Your task to perform on an android device: Go to internet settings Image 0: 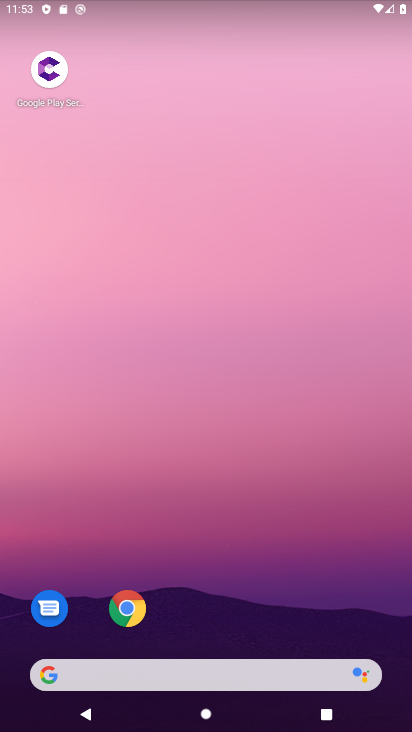
Step 0: drag from (286, 601) to (273, 19)
Your task to perform on an android device: Go to internet settings Image 1: 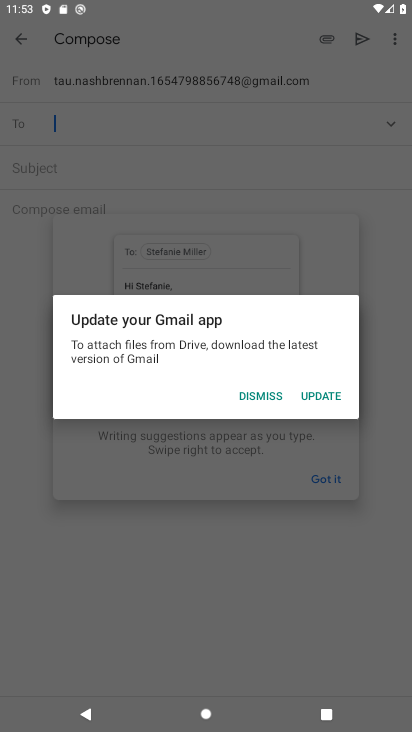
Step 1: press home button
Your task to perform on an android device: Go to internet settings Image 2: 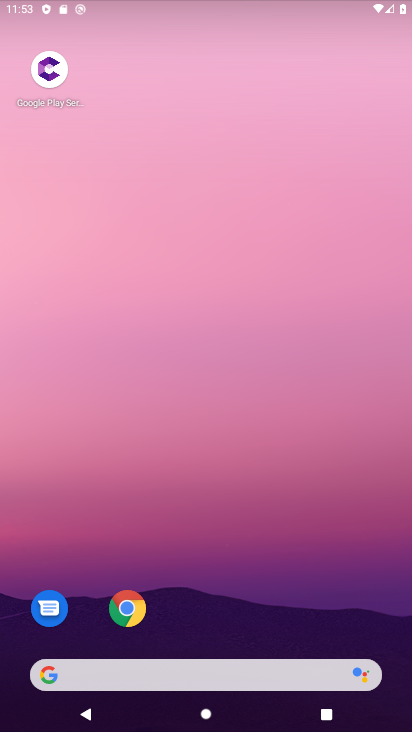
Step 2: drag from (258, 620) to (344, 44)
Your task to perform on an android device: Go to internet settings Image 3: 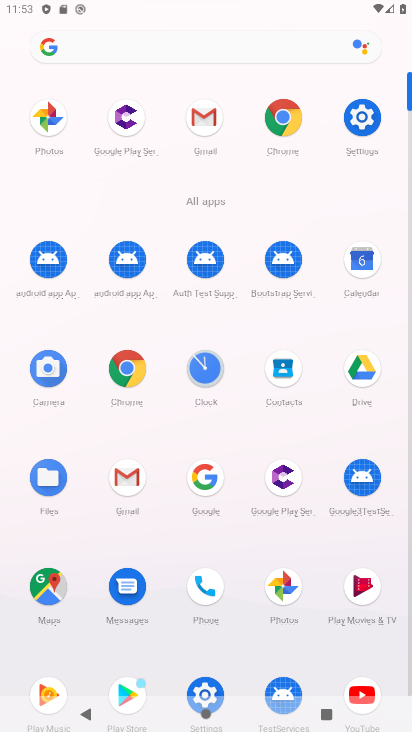
Step 3: click (364, 170)
Your task to perform on an android device: Go to internet settings Image 4: 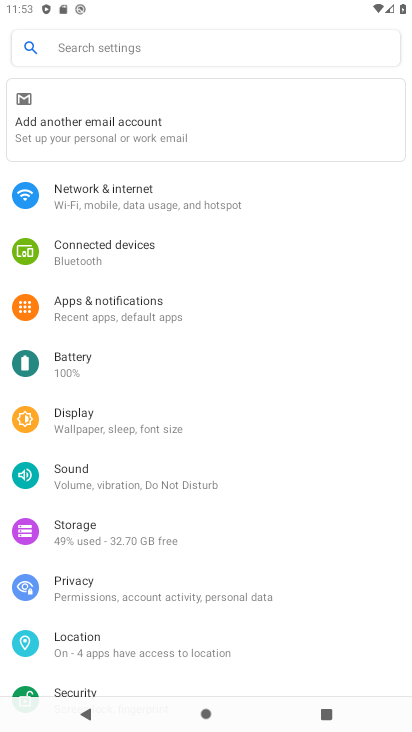
Step 4: click (217, 190)
Your task to perform on an android device: Go to internet settings Image 5: 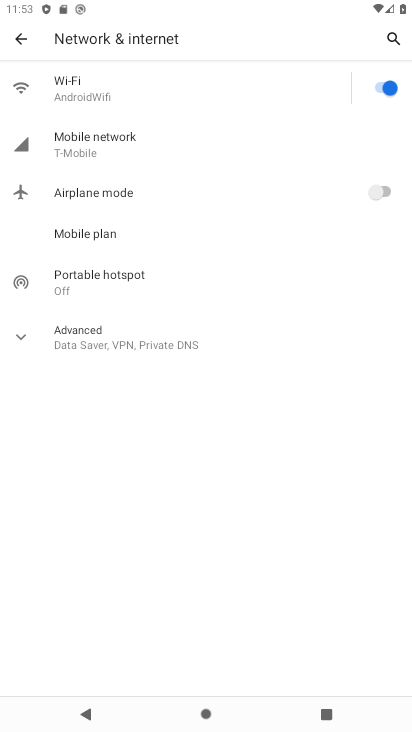
Step 5: task complete